Your task to perform on an android device: clear history in the chrome app Image 0: 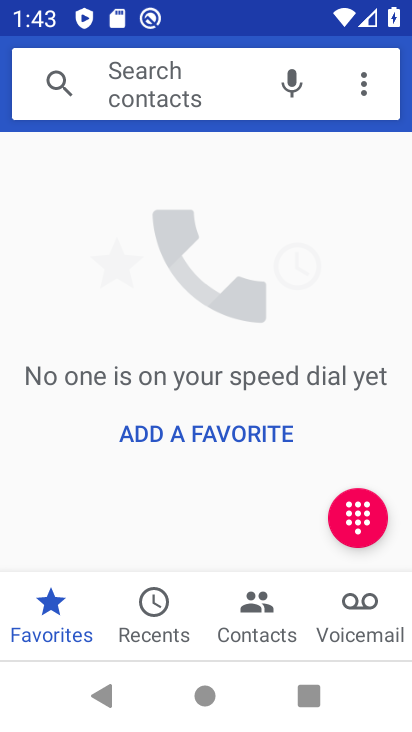
Step 0: press home button
Your task to perform on an android device: clear history in the chrome app Image 1: 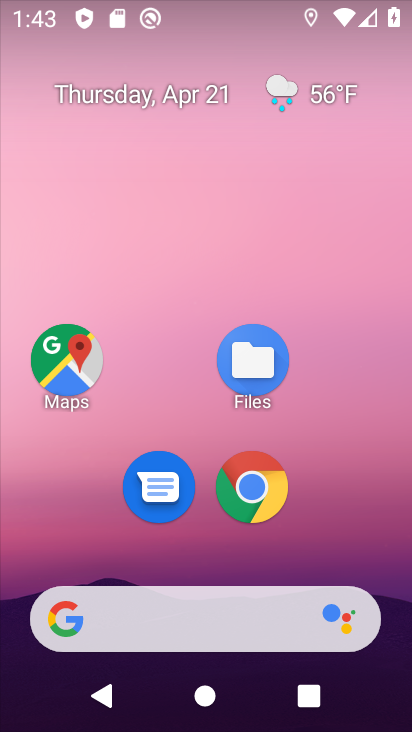
Step 1: drag from (364, 538) to (360, 150)
Your task to perform on an android device: clear history in the chrome app Image 2: 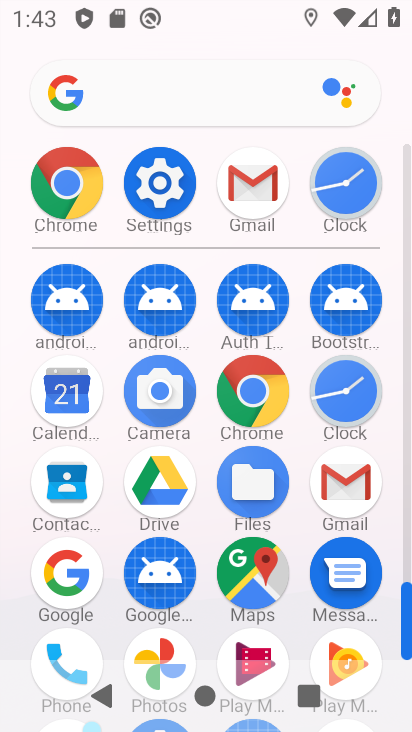
Step 2: click (236, 403)
Your task to perform on an android device: clear history in the chrome app Image 3: 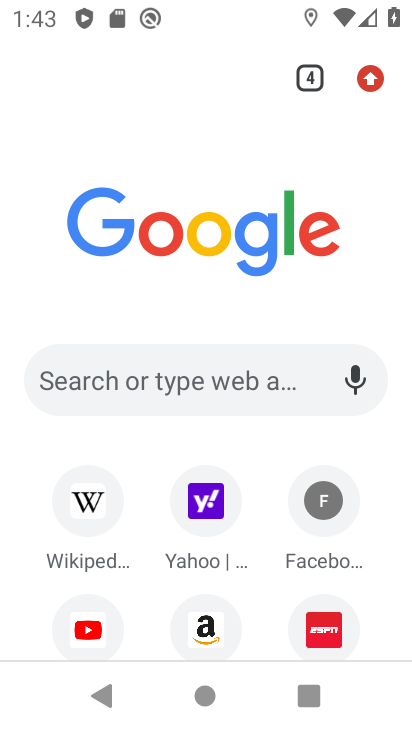
Step 3: click (363, 83)
Your task to perform on an android device: clear history in the chrome app Image 4: 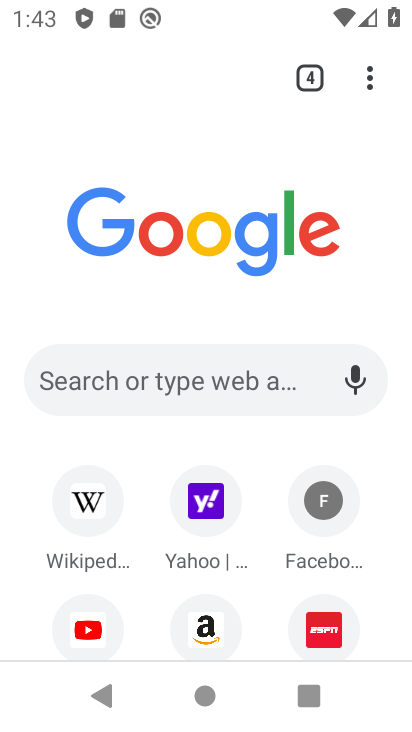
Step 4: click (375, 91)
Your task to perform on an android device: clear history in the chrome app Image 5: 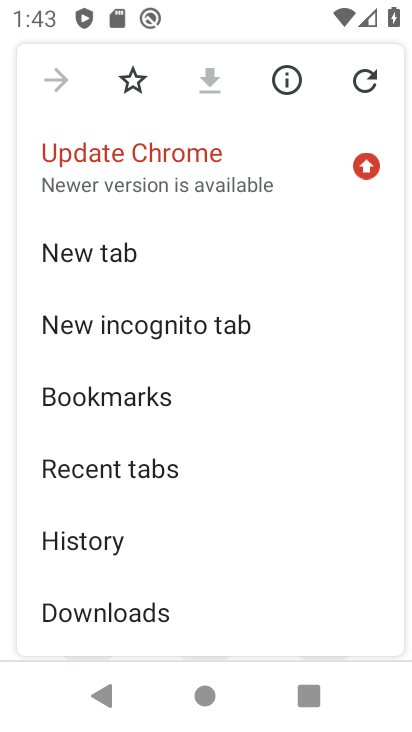
Step 5: drag from (186, 628) to (267, 278)
Your task to perform on an android device: clear history in the chrome app Image 6: 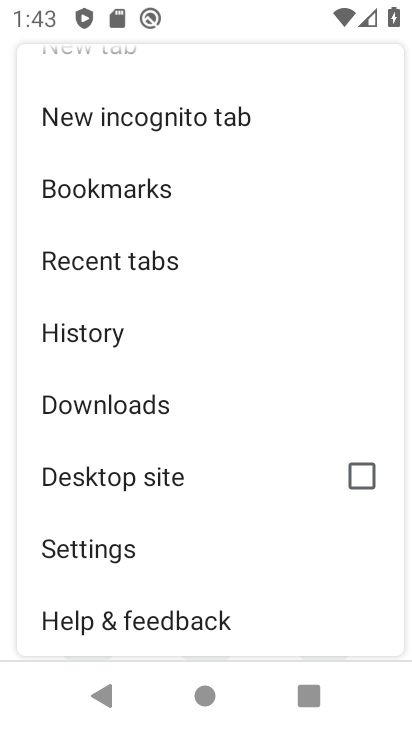
Step 6: click (132, 350)
Your task to perform on an android device: clear history in the chrome app Image 7: 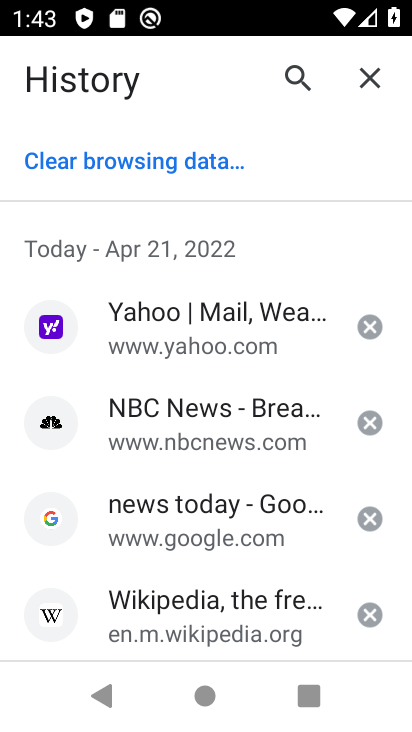
Step 7: click (155, 169)
Your task to perform on an android device: clear history in the chrome app Image 8: 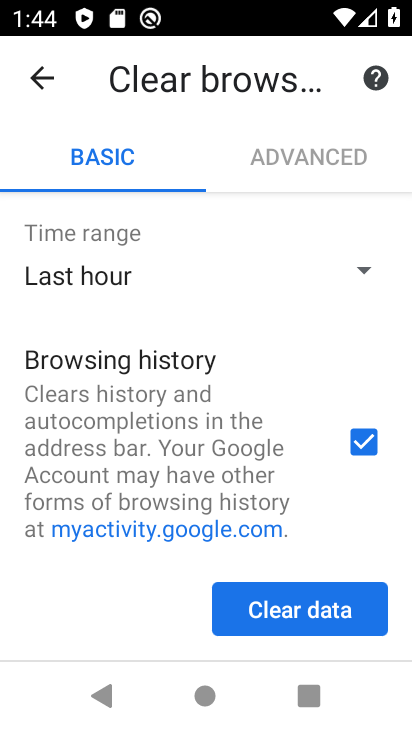
Step 8: click (303, 621)
Your task to perform on an android device: clear history in the chrome app Image 9: 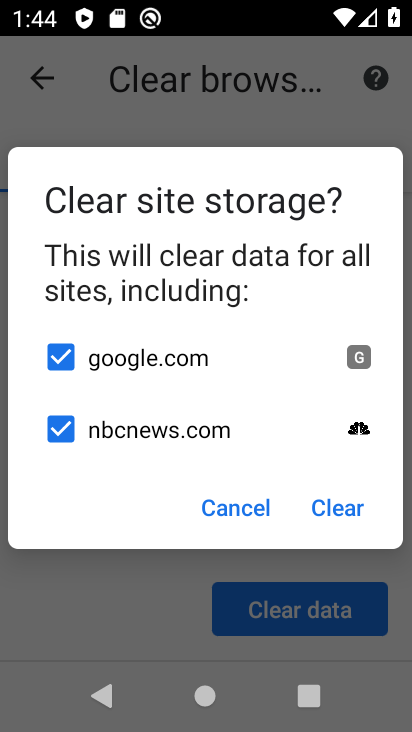
Step 9: click (336, 509)
Your task to perform on an android device: clear history in the chrome app Image 10: 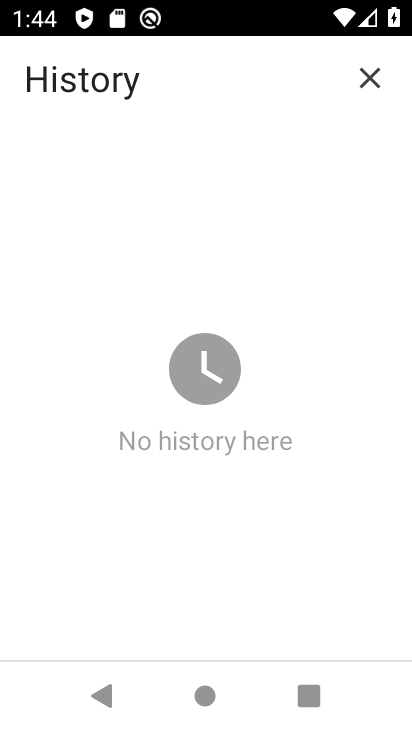
Step 10: task complete